Your task to perform on an android device: install app "Facebook Lite" Image 0: 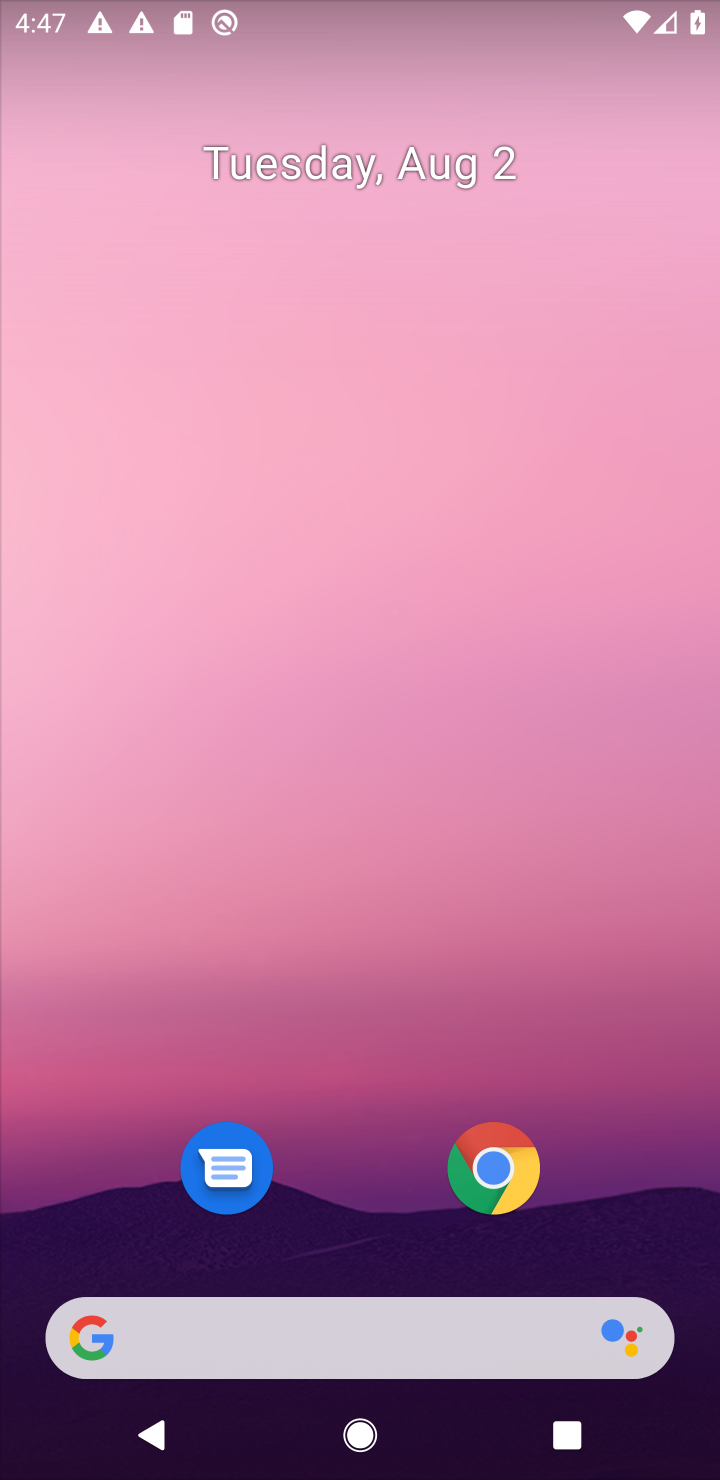
Step 0: drag from (367, 797) to (429, 167)
Your task to perform on an android device: install app "Facebook Lite" Image 1: 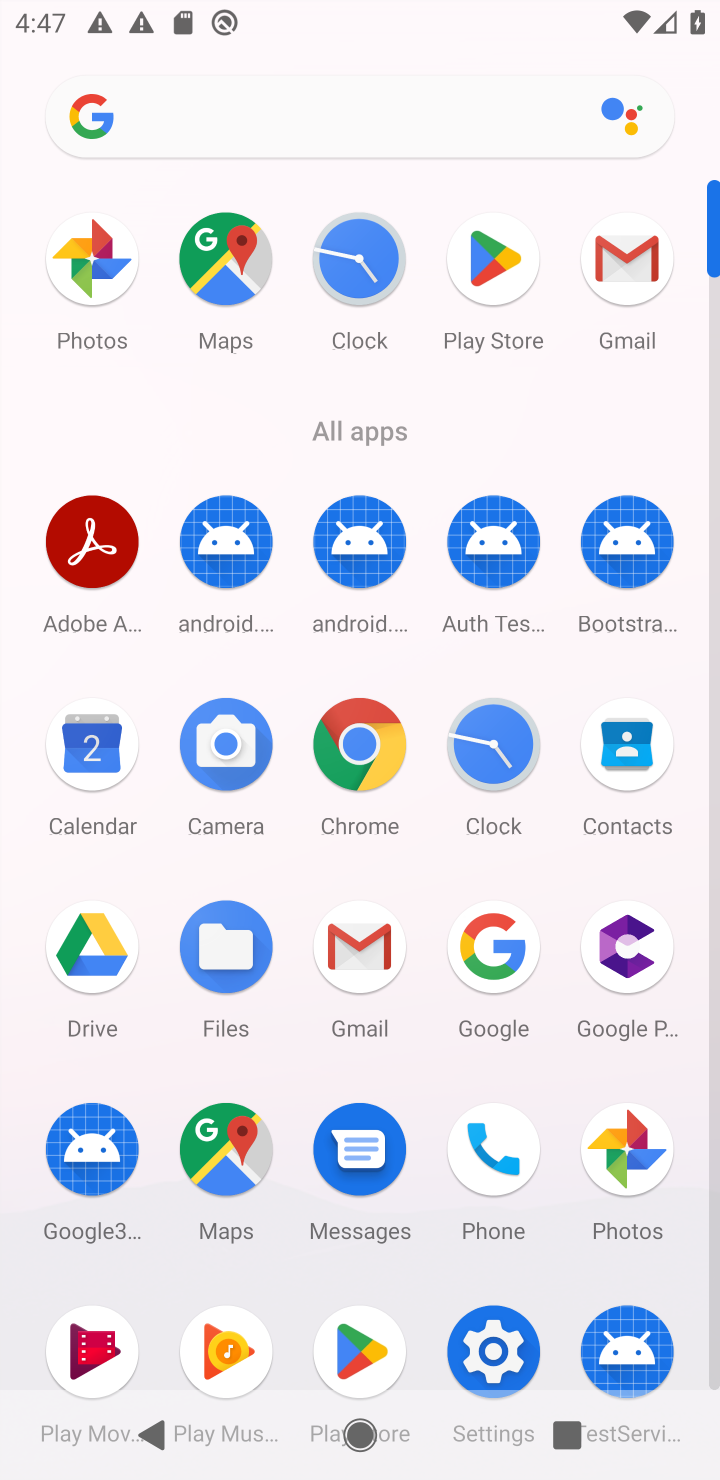
Step 1: click (481, 283)
Your task to perform on an android device: install app "Facebook Lite" Image 2: 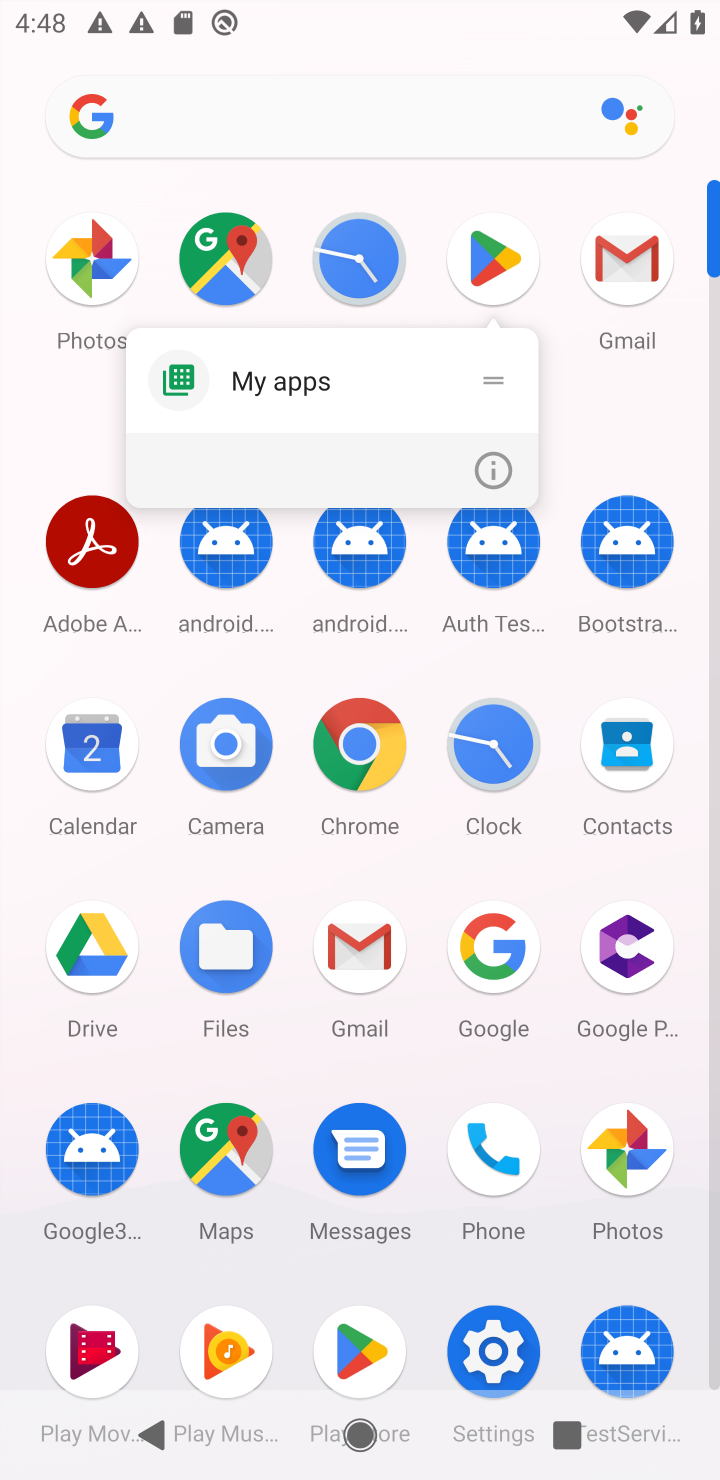
Step 2: click (510, 268)
Your task to perform on an android device: install app "Facebook Lite" Image 3: 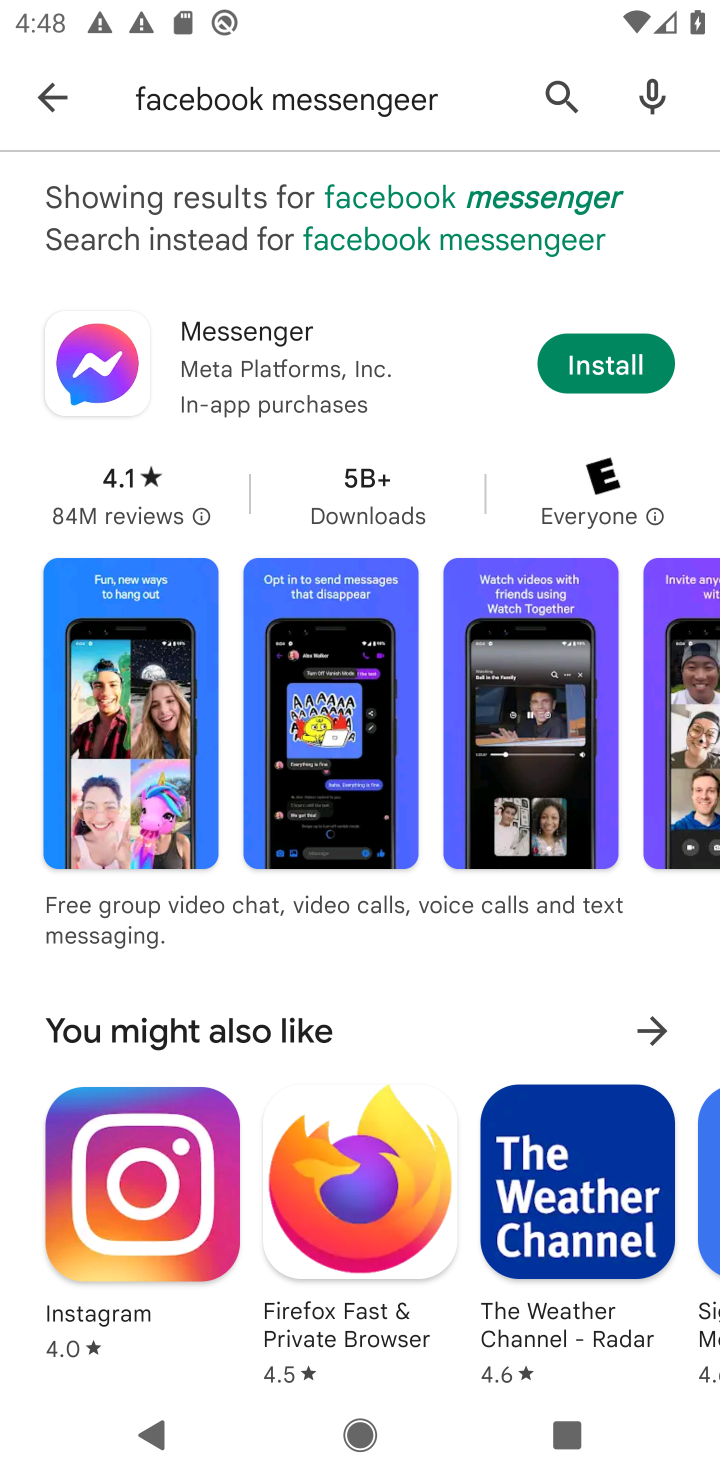
Step 3: click (350, 93)
Your task to perform on an android device: install app "Facebook Lite" Image 4: 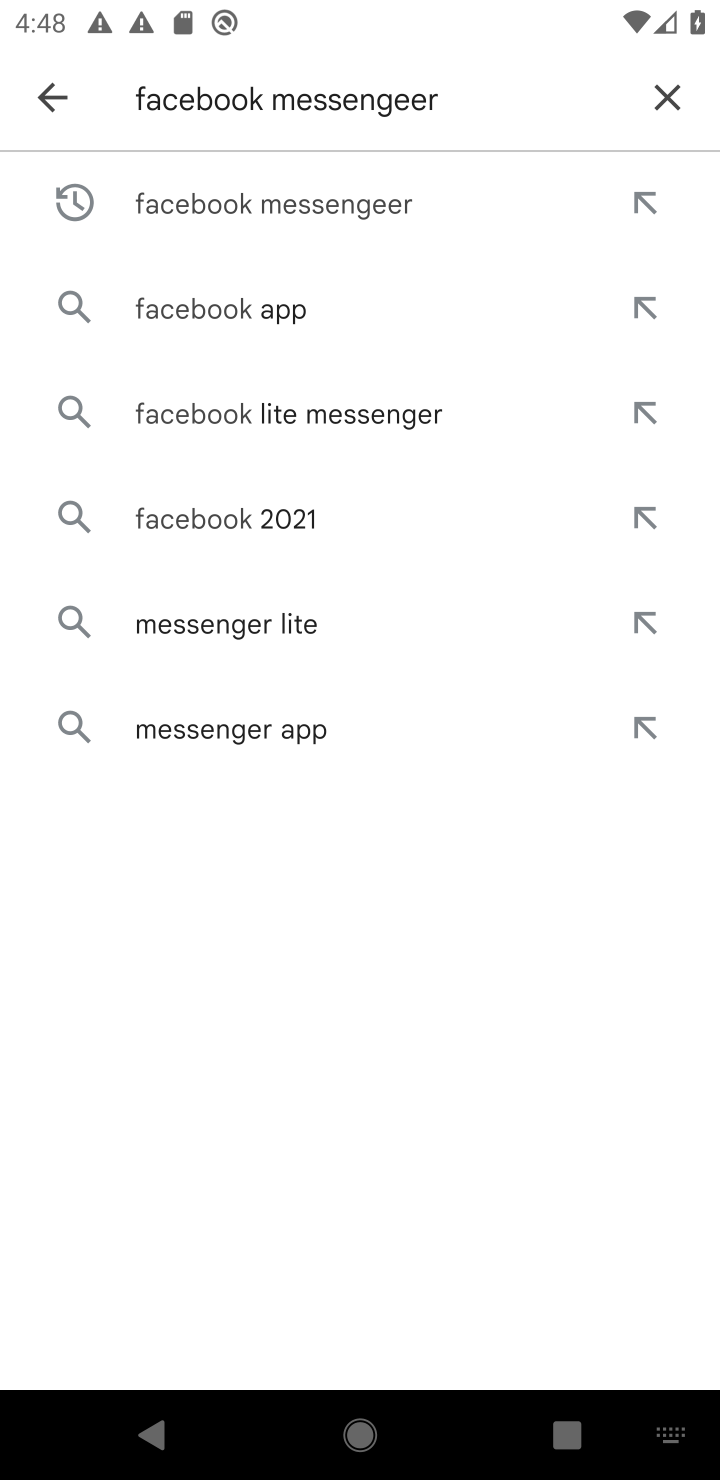
Step 4: click (346, 99)
Your task to perform on an android device: install app "Facebook Lite" Image 5: 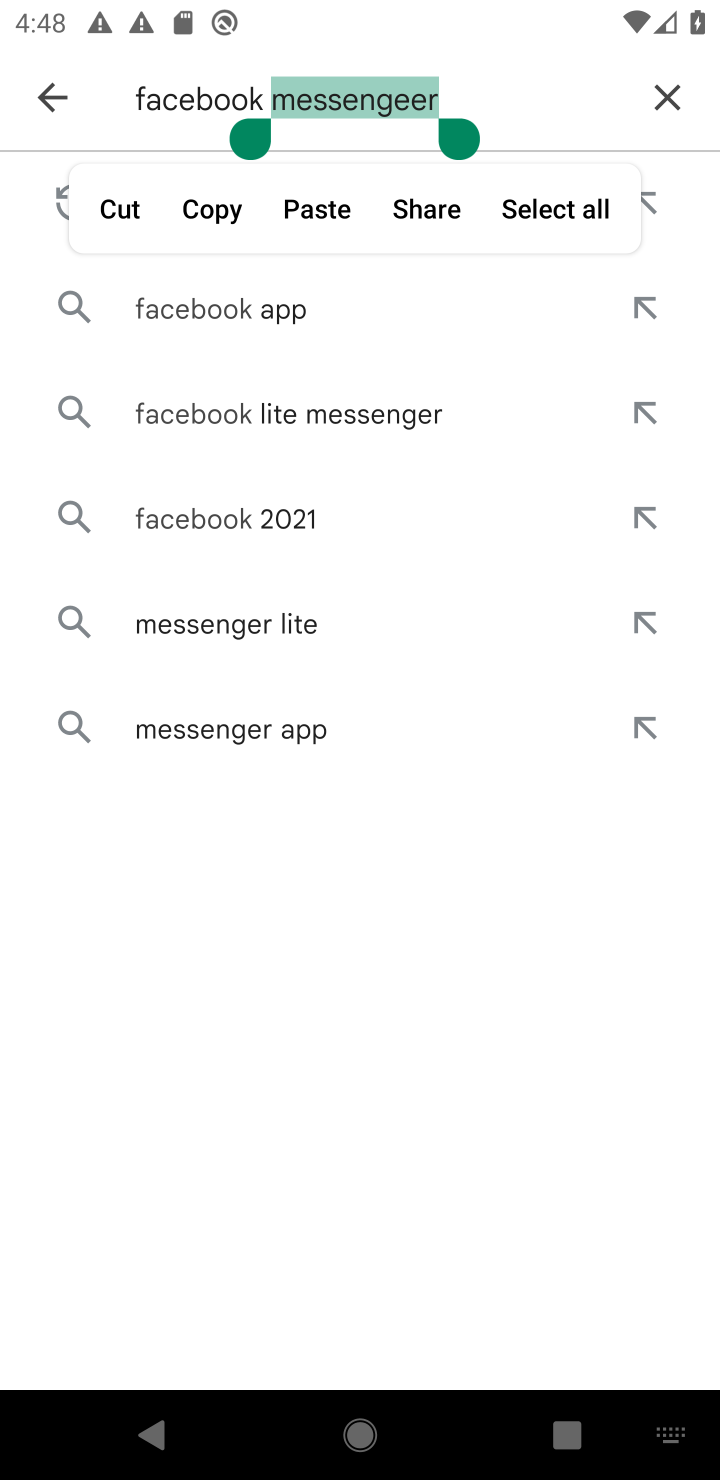
Step 5: type "Lite"
Your task to perform on an android device: install app "Facebook Lite" Image 6: 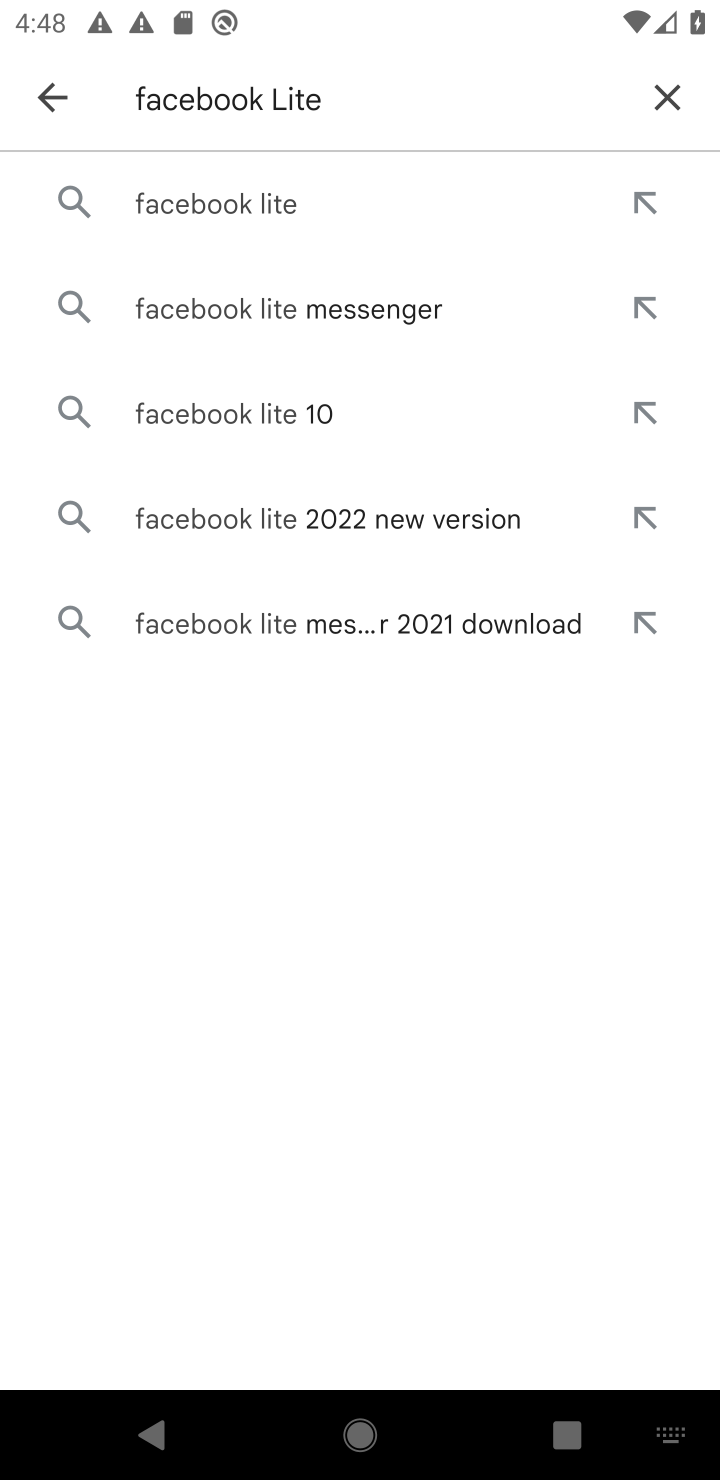
Step 6: click (295, 233)
Your task to perform on an android device: install app "Facebook Lite" Image 7: 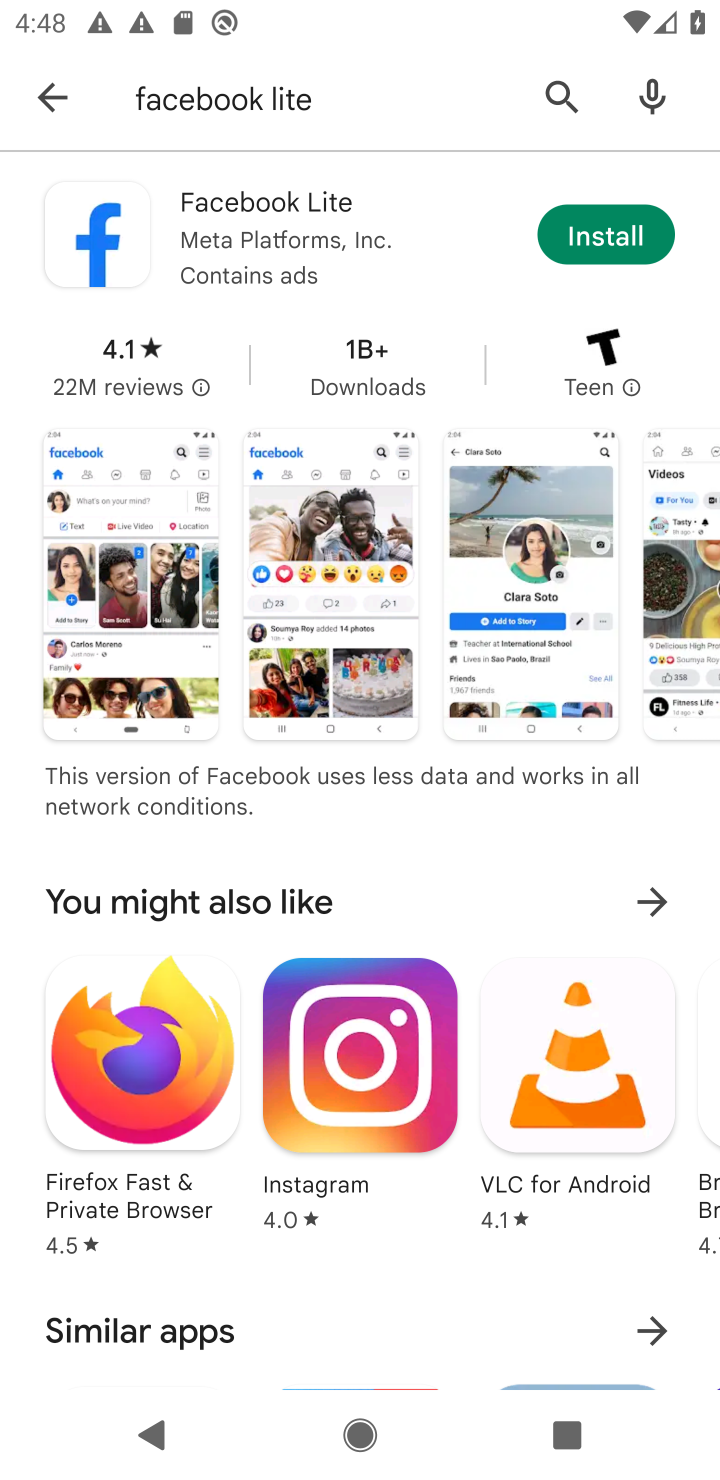
Step 7: click (620, 228)
Your task to perform on an android device: install app "Facebook Lite" Image 8: 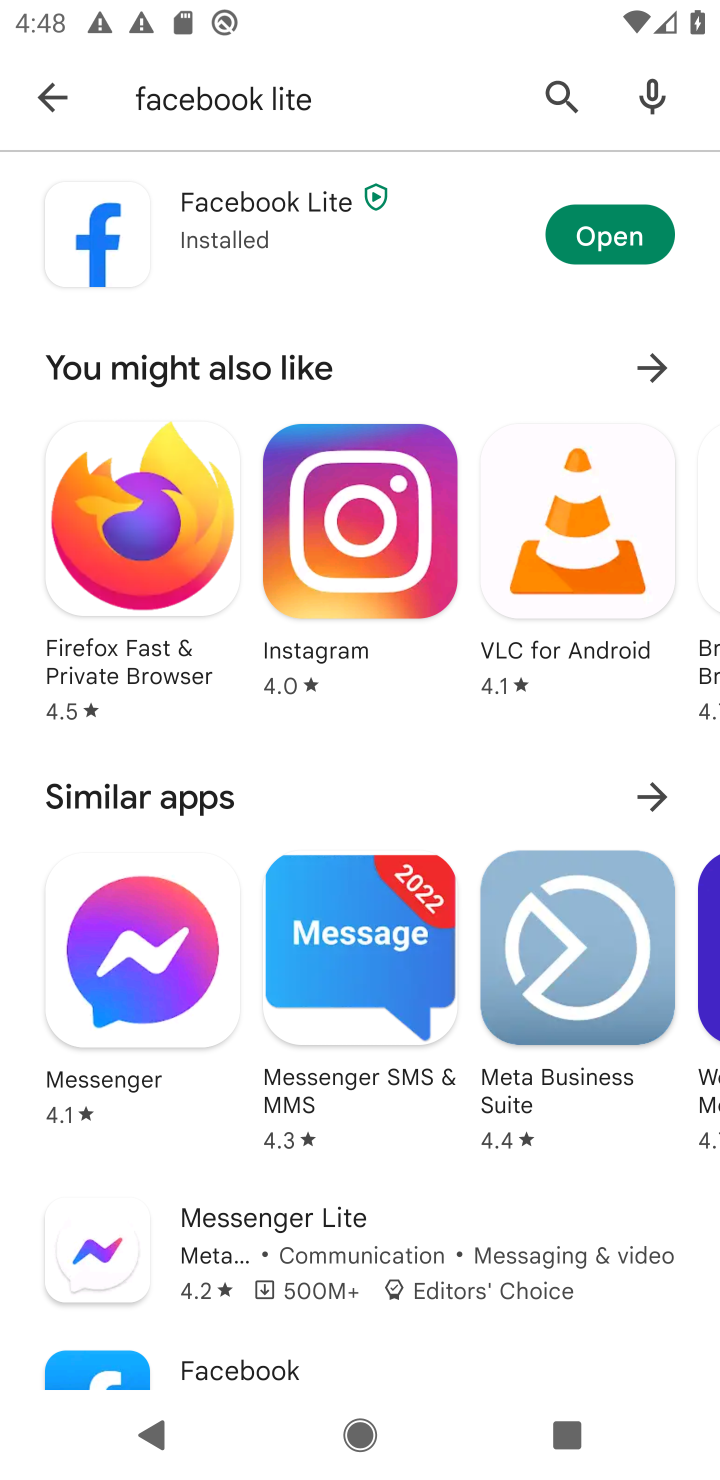
Step 8: task complete